Your task to perform on an android device: Search for pizza restaurants on Maps Image 0: 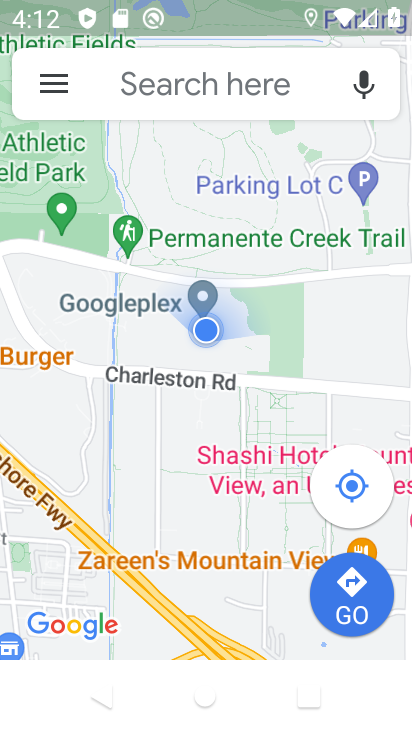
Step 0: press home button
Your task to perform on an android device: Search for pizza restaurants on Maps Image 1: 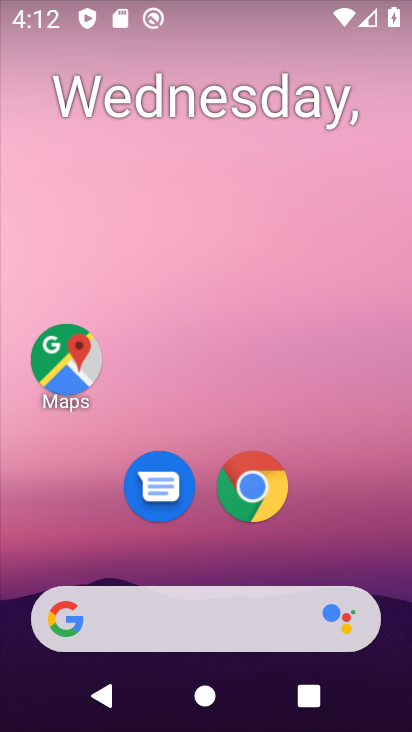
Step 1: drag from (223, 707) to (290, 160)
Your task to perform on an android device: Search for pizza restaurants on Maps Image 2: 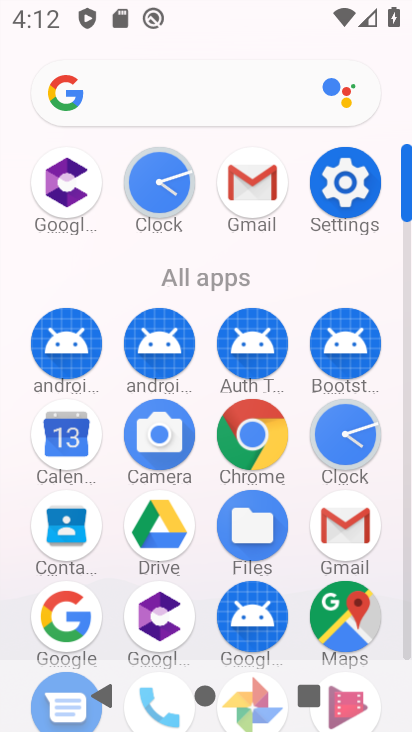
Step 2: click (355, 607)
Your task to perform on an android device: Search for pizza restaurants on Maps Image 3: 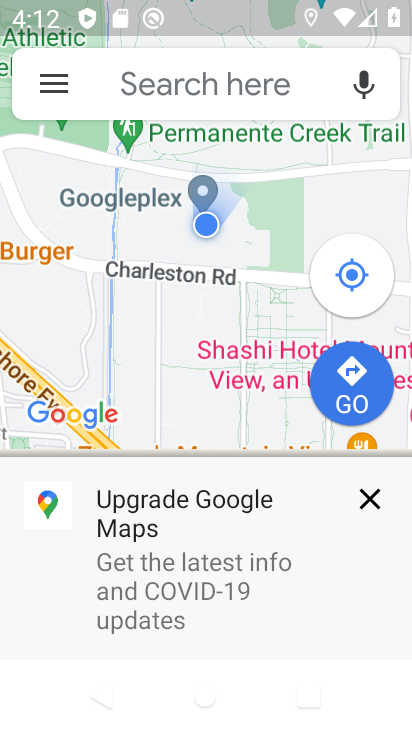
Step 3: click (253, 90)
Your task to perform on an android device: Search for pizza restaurants on Maps Image 4: 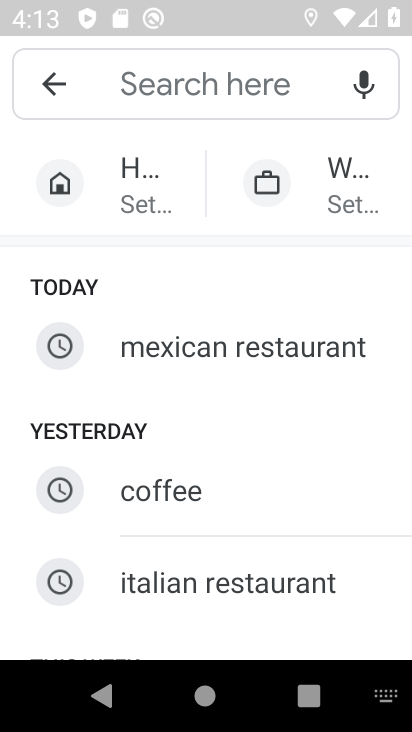
Step 4: drag from (215, 559) to (281, 34)
Your task to perform on an android device: Search for pizza restaurants on Maps Image 5: 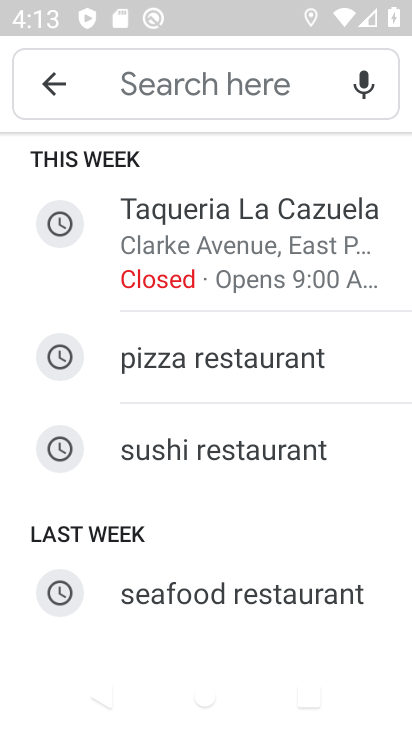
Step 5: drag from (211, 547) to (214, 103)
Your task to perform on an android device: Search for pizza restaurants on Maps Image 6: 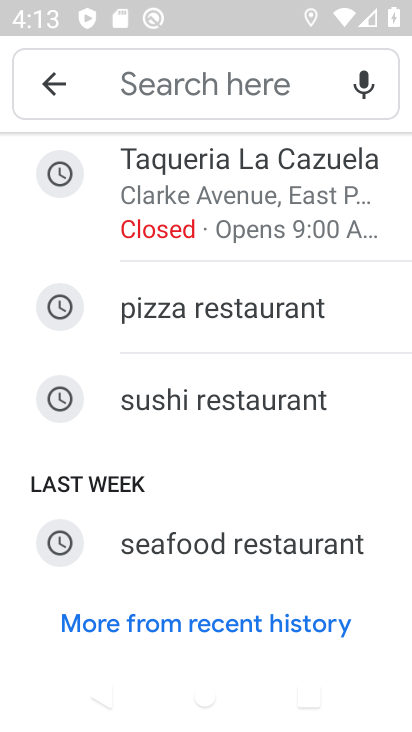
Step 6: drag from (208, 551) to (230, 271)
Your task to perform on an android device: Search for pizza restaurants on Maps Image 7: 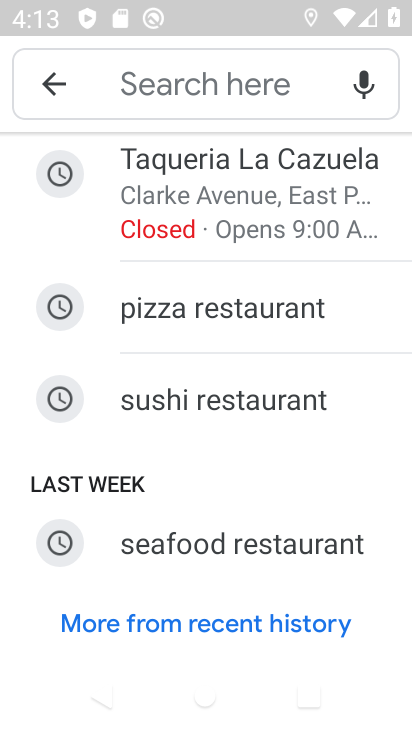
Step 7: click (206, 89)
Your task to perform on an android device: Search for pizza restaurants on Maps Image 8: 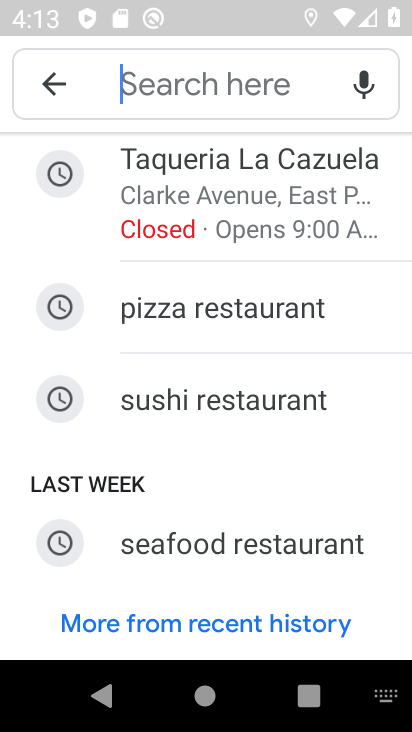
Step 8: type "pizza rstaurants"
Your task to perform on an android device: Search for pizza restaurants on Maps Image 9: 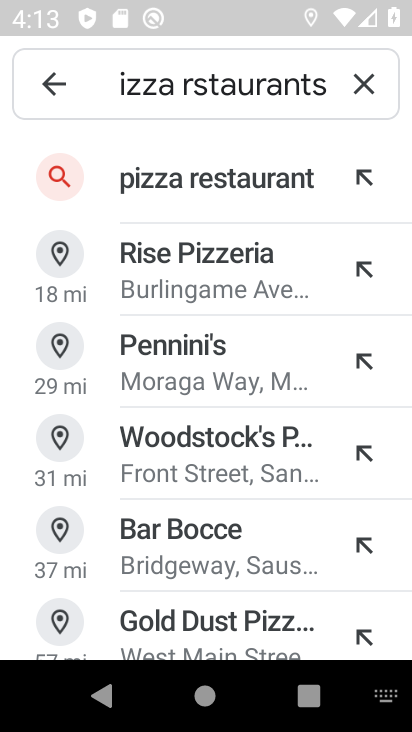
Step 9: click (250, 195)
Your task to perform on an android device: Search for pizza restaurants on Maps Image 10: 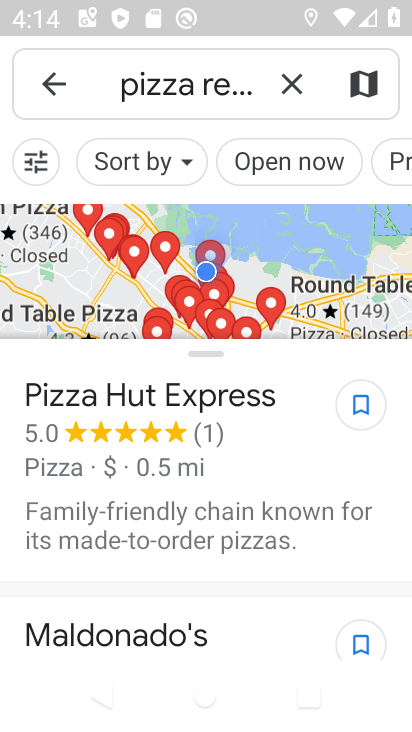
Step 10: task complete